Your task to perform on an android device: See recent photos Image 0: 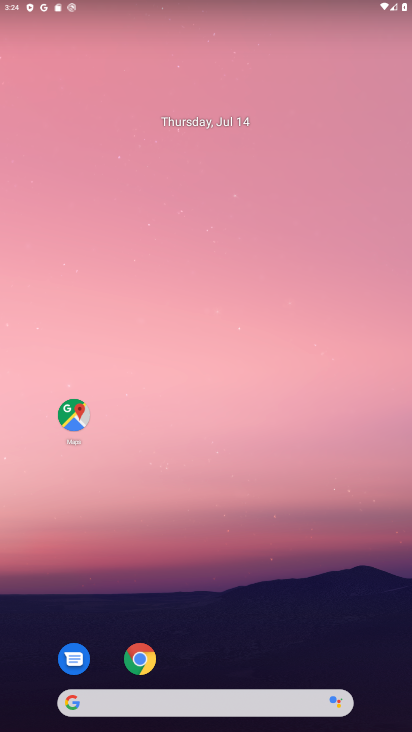
Step 0: drag from (333, 644) to (365, 108)
Your task to perform on an android device: See recent photos Image 1: 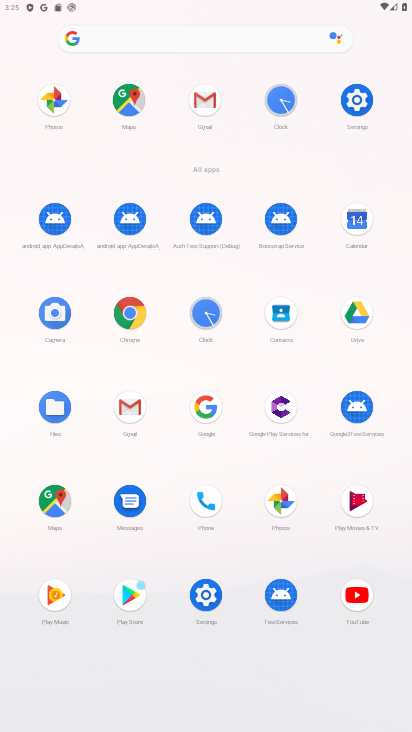
Step 1: click (280, 502)
Your task to perform on an android device: See recent photos Image 2: 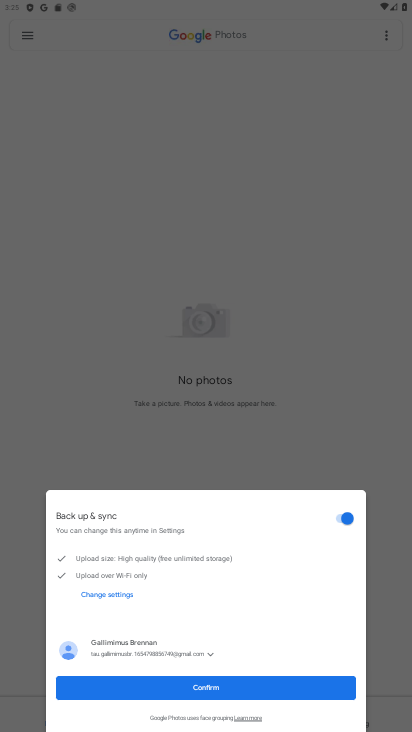
Step 2: click (234, 684)
Your task to perform on an android device: See recent photos Image 3: 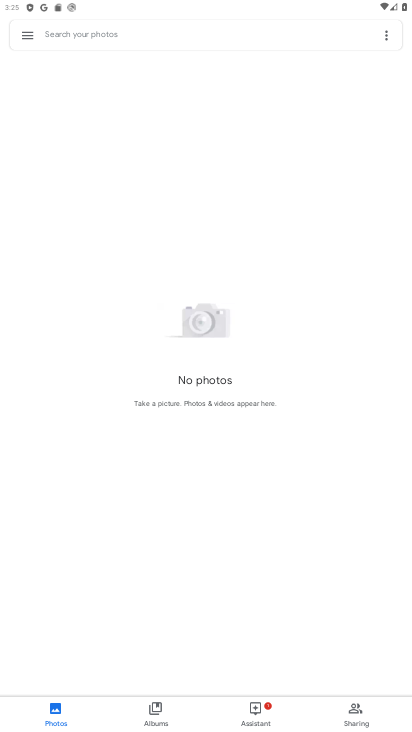
Step 3: task complete